Your task to perform on an android device: set default search engine in the chrome app Image 0: 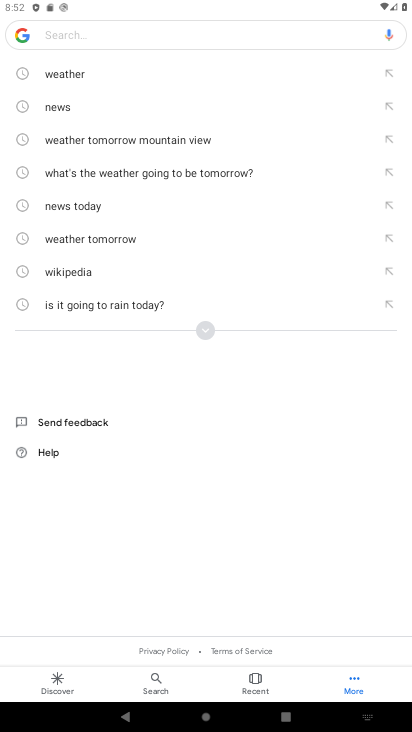
Step 0: press home button
Your task to perform on an android device: set default search engine in the chrome app Image 1: 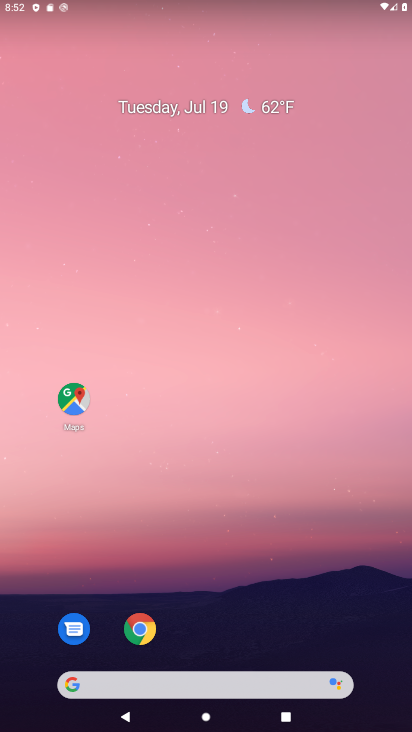
Step 1: click (138, 625)
Your task to perform on an android device: set default search engine in the chrome app Image 2: 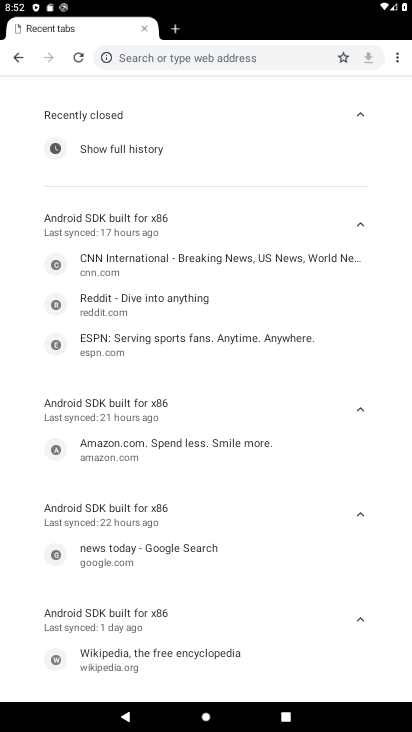
Step 2: click (182, 26)
Your task to perform on an android device: set default search engine in the chrome app Image 3: 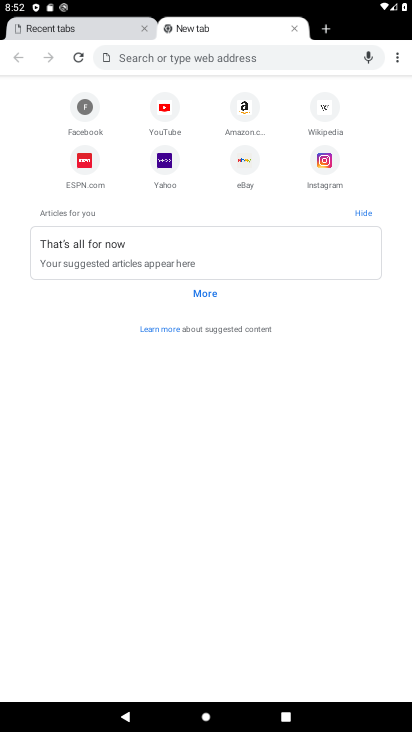
Step 3: click (394, 54)
Your task to perform on an android device: set default search engine in the chrome app Image 4: 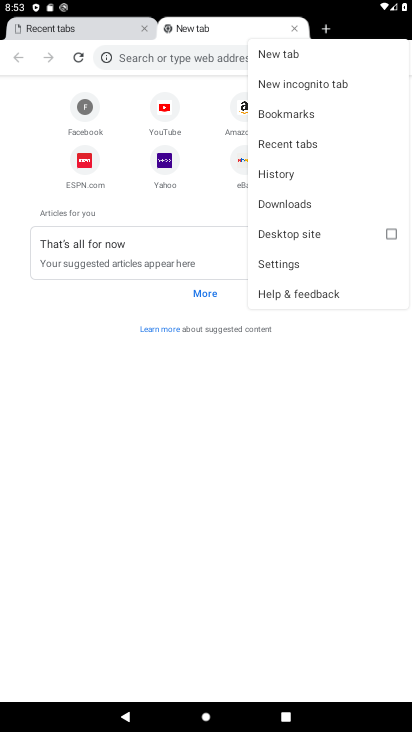
Step 4: click (307, 260)
Your task to perform on an android device: set default search engine in the chrome app Image 5: 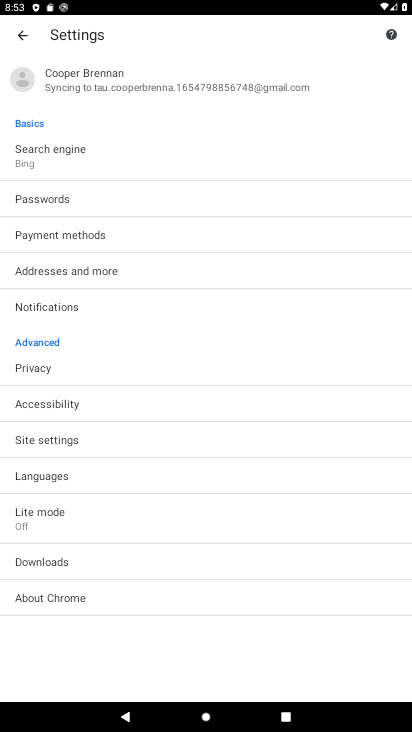
Step 5: click (54, 161)
Your task to perform on an android device: set default search engine in the chrome app Image 6: 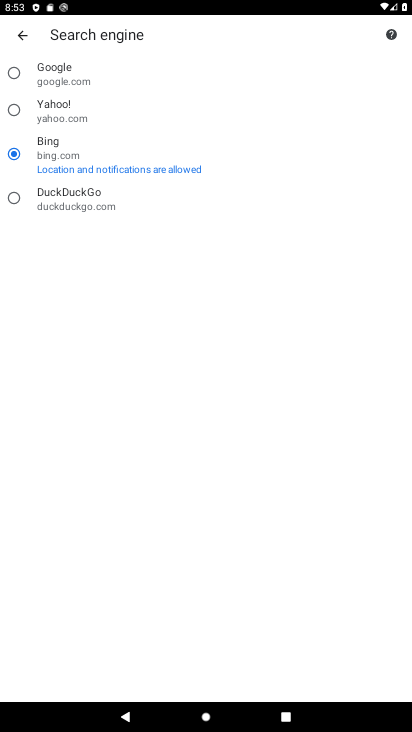
Step 6: click (13, 67)
Your task to perform on an android device: set default search engine in the chrome app Image 7: 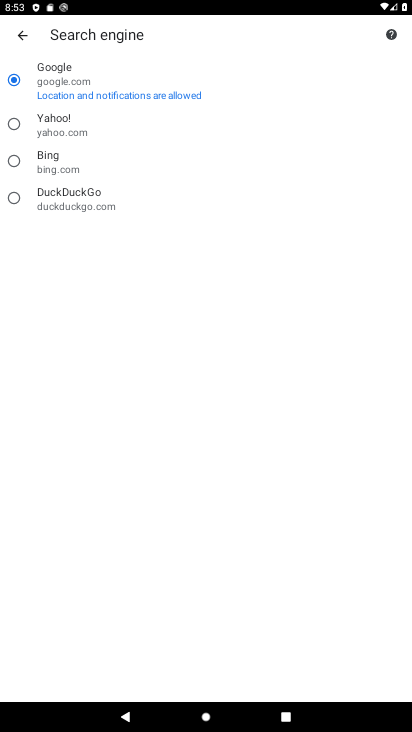
Step 7: task complete